Your task to perform on an android device: turn off notifications in google photos Image 0: 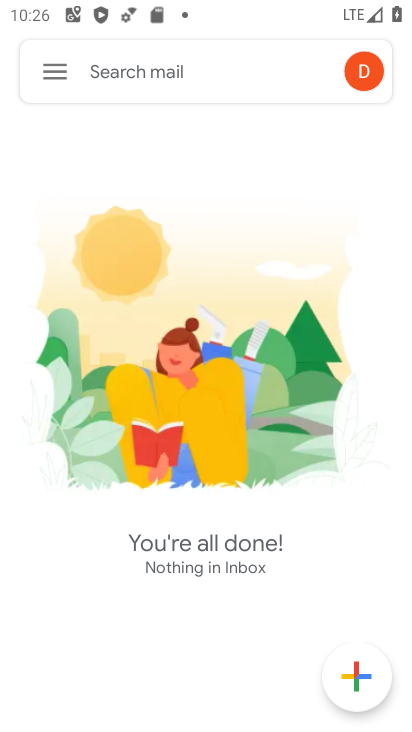
Step 0: press home button
Your task to perform on an android device: turn off notifications in google photos Image 1: 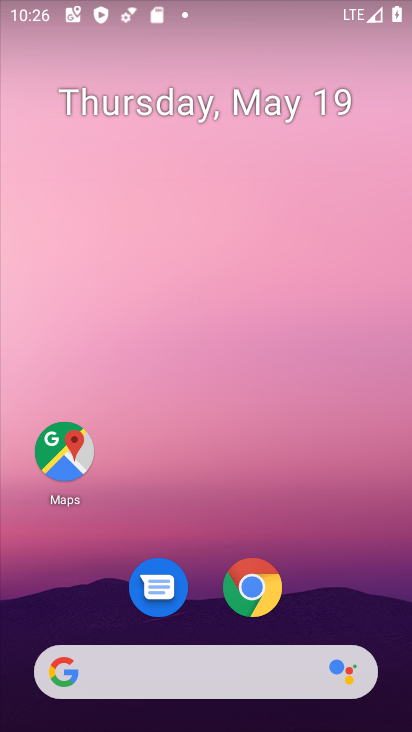
Step 1: drag from (201, 560) to (210, 216)
Your task to perform on an android device: turn off notifications in google photos Image 2: 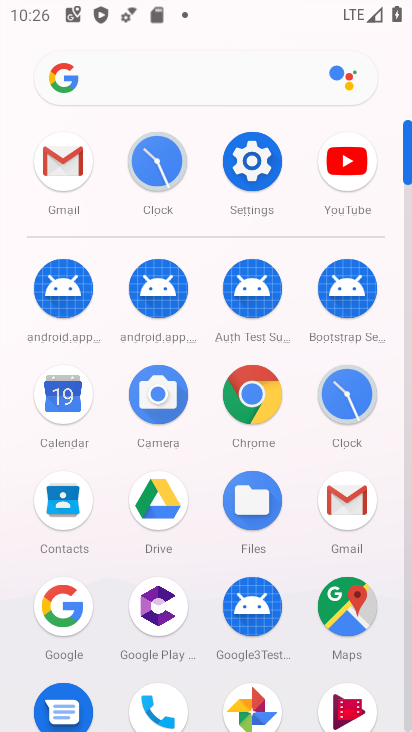
Step 2: click (265, 696)
Your task to perform on an android device: turn off notifications in google photos Image 3: 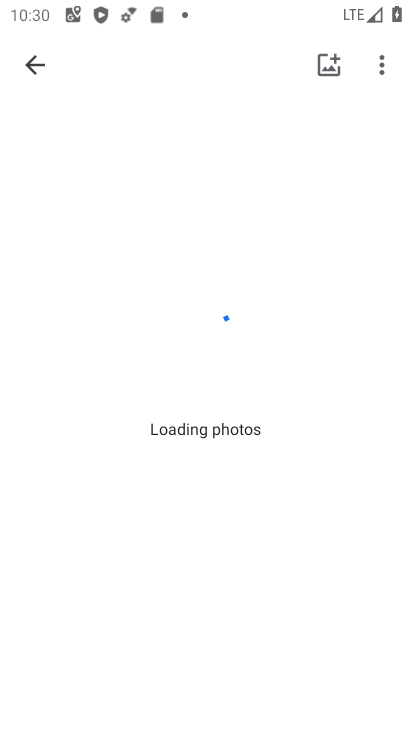
Step 3: task complete